Your task to perform on an android device: refresh tabs in the chrome app Image 0: 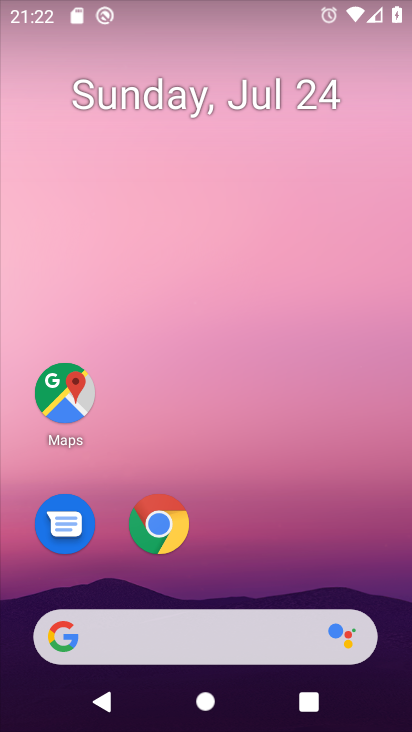
Step 0: click (172, 530)
Your task to perform on an android device: refresh tabs in the chrome app Image 1: 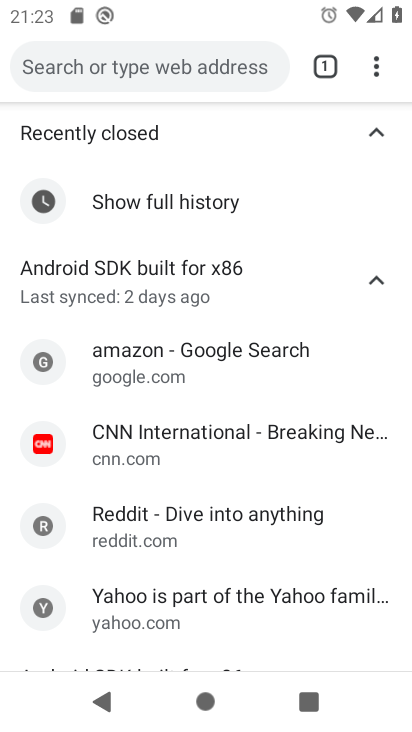
Step 1: press back button
Your task to perform on an android device: refresh tabs in the chrome app Image 2: 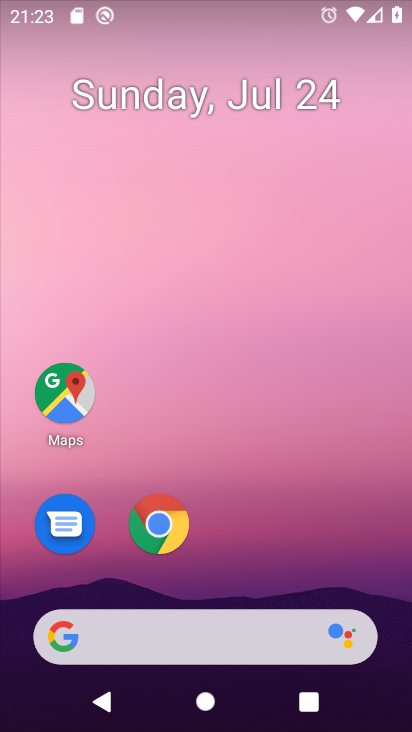
Step 2: click (161, 521)
Your task to perform on an android device: refresh tabs in the chrome app Image 3: 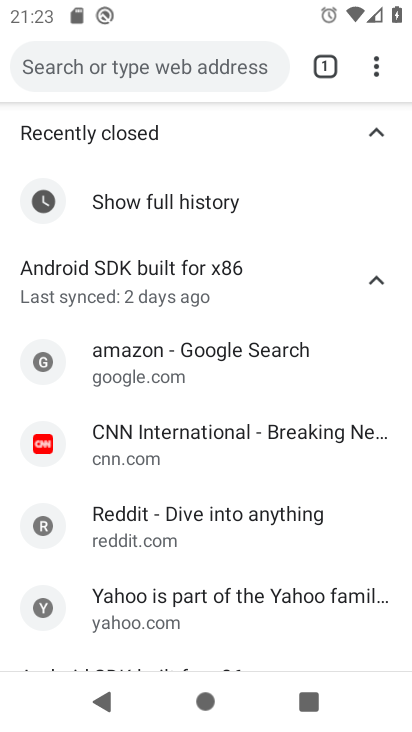
Step 3: click (374, 67)
Your task to perform on an android device: refresh tabs in the chrome app Image 4: 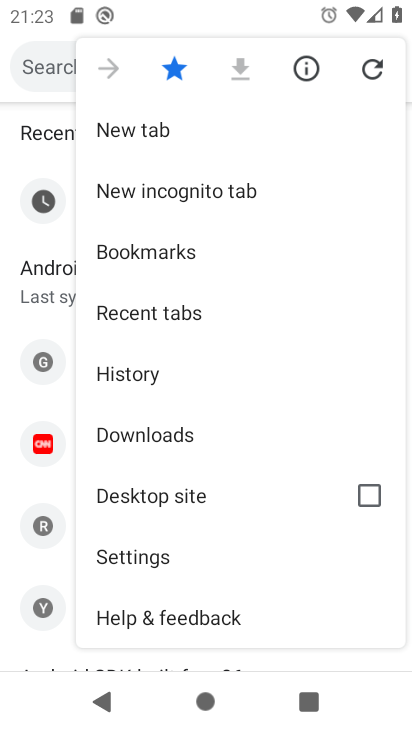
Step 4: click (364, 62)
Your task to perform on an android device: refresh tabs in the chrome app Image 5: 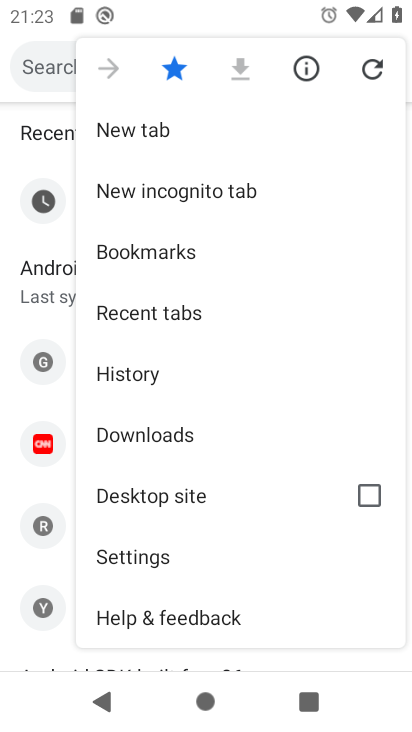
Step 5: click (366, 66)
Your task to perform on an android device: refresh tabs in the chrome app Image 6: 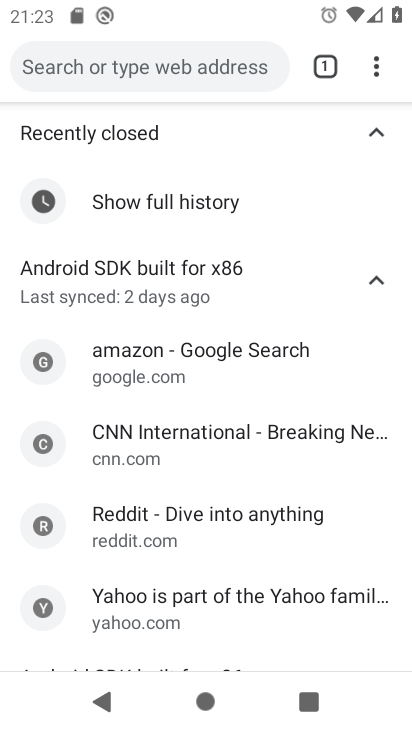
Step 6: task complete